Your task to perform on an android device: toggle wifi Image 0: 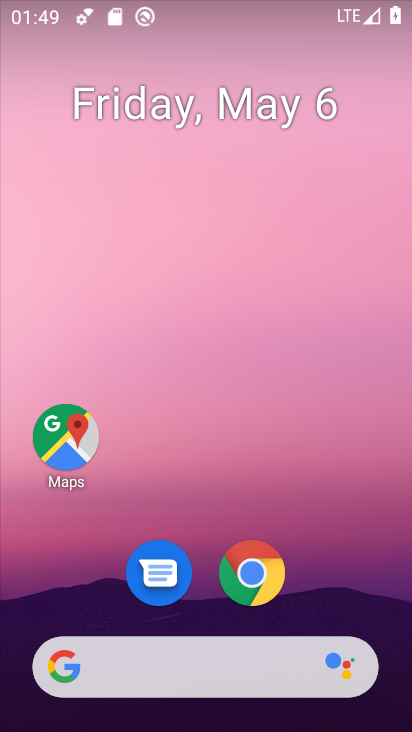
Step 0: drag from (341, 545) to (343, 174)
Your task to perform on an android device: toggle wifi Image 1: 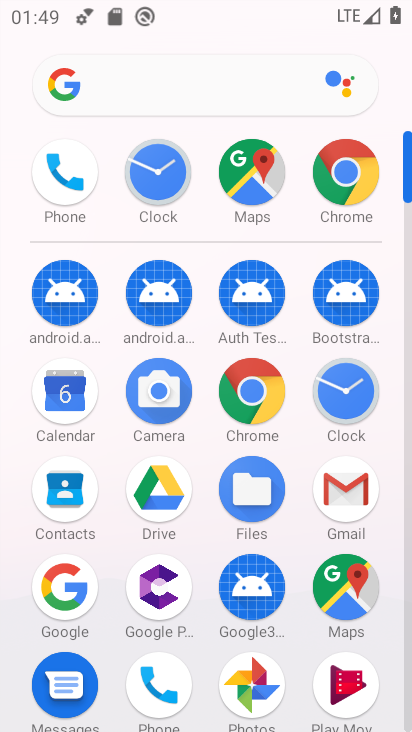
Step 1: drag from (205, 625) to (278, 198)
Your task to perform on an android device: toggle wifi Image 2: 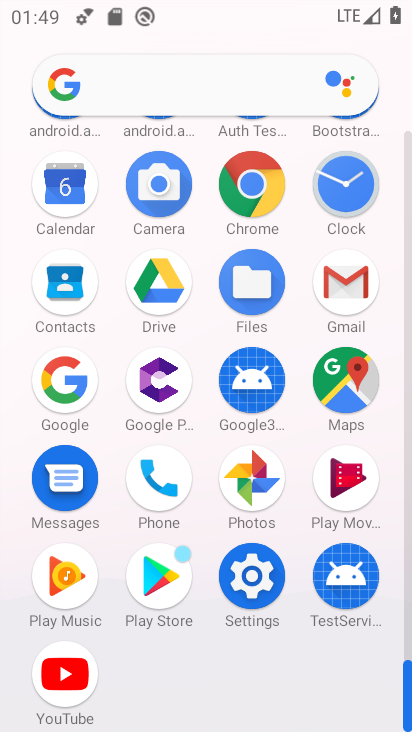
Step 2: click (252, 568)
Your task to perform on an android device: toggle wifi Image 3: 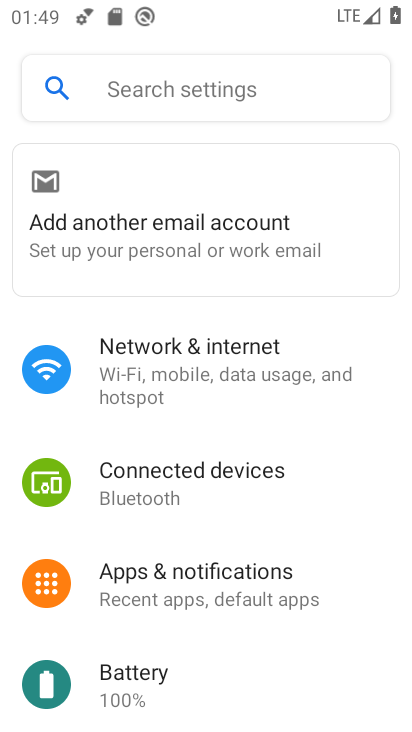
Step 3: click (225, 362)
Your task to perform on an android device: toggle wifi Image 4: 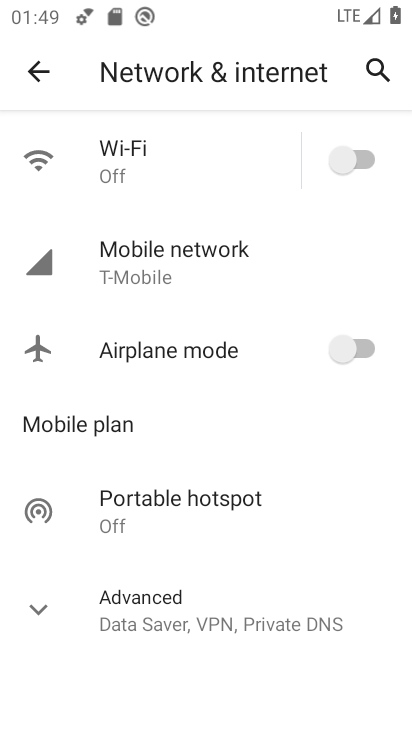
Step 4: click (355, 154)
Your task to perform on an android device: toggle wifi Image 5: 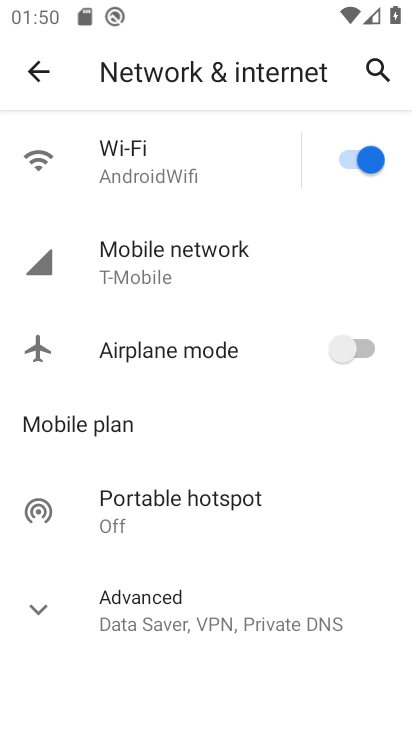
Step 5: task complete